Your task to perform on an android device: See recent photos Image 0: 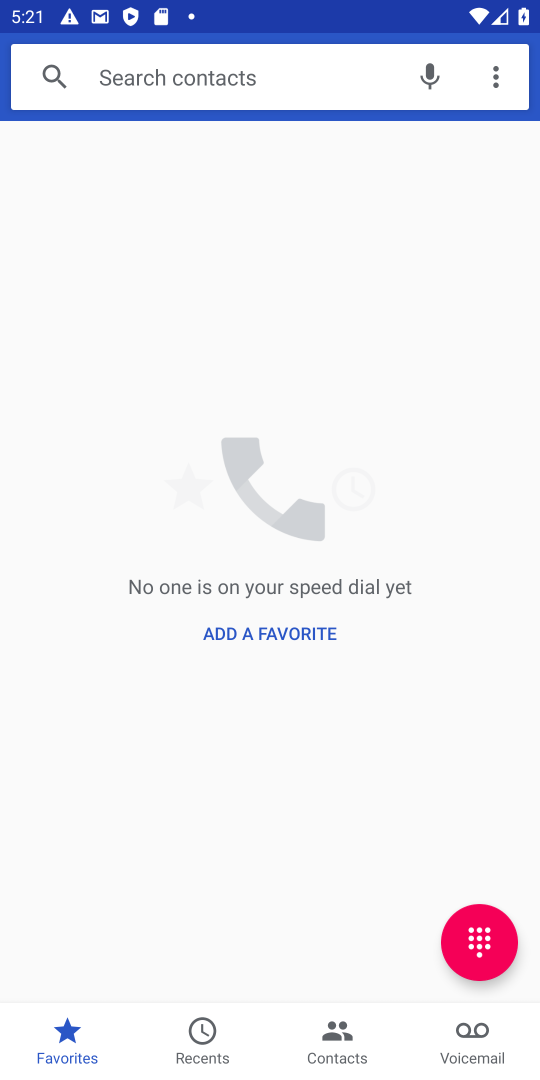
Step 0: press home button
Your task to perform on an android device: See recent photos Image 1: 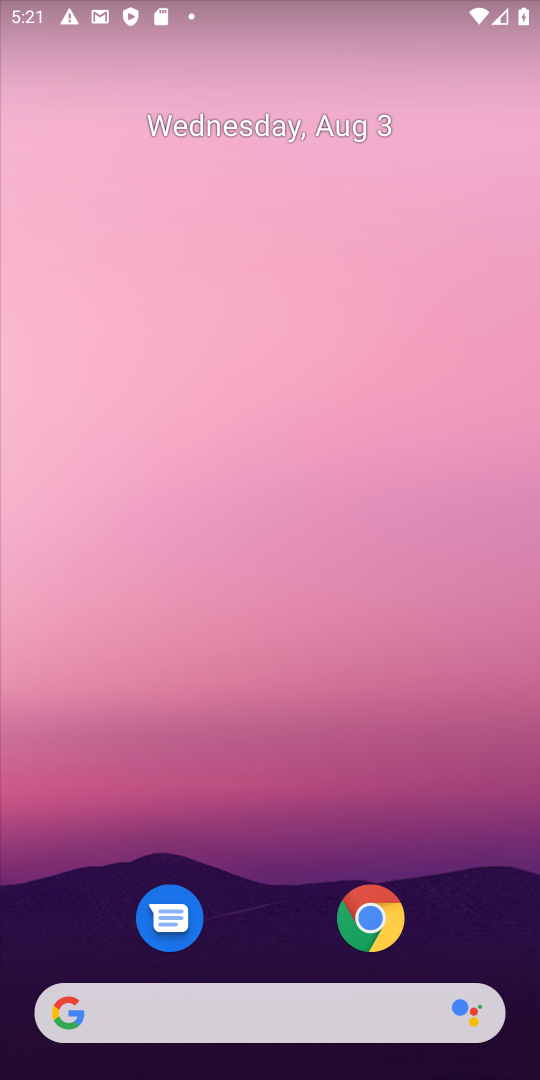
Step 1: drag from (295, 945) to (188, 193)
Your task to perform on an android device: See recent photos Image 2: 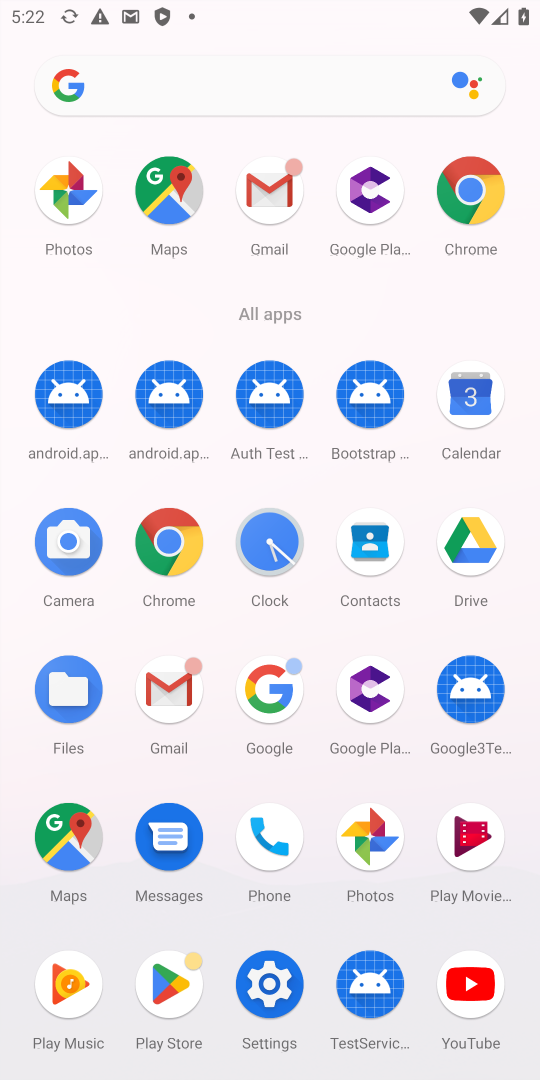
Step 2: click (373, 842)
Your task to perform on an android device: See recent photos Image 3: 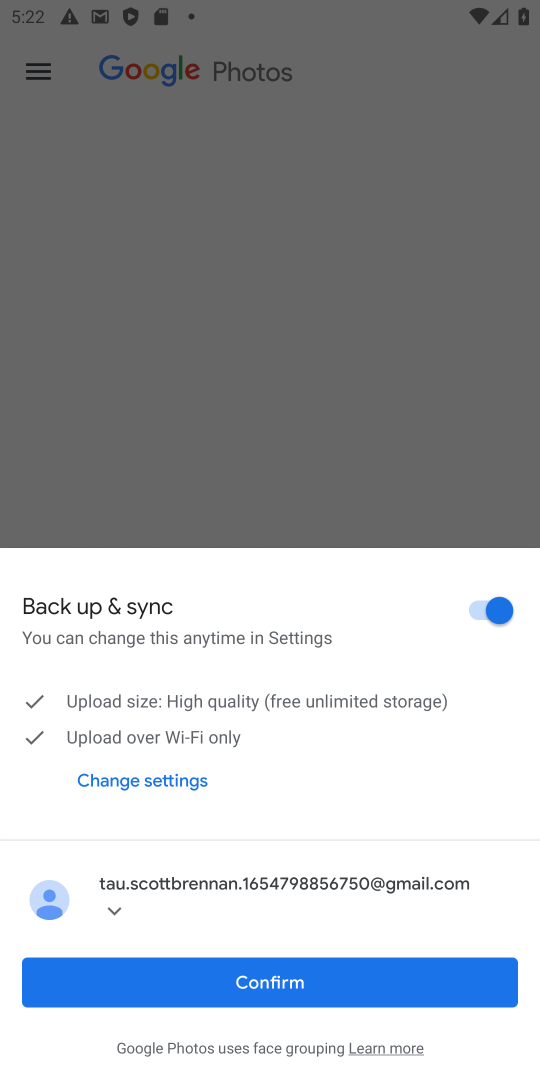
Step 3: click (256, 987)
Your task to perform on an android device: See recent photos Image 4: 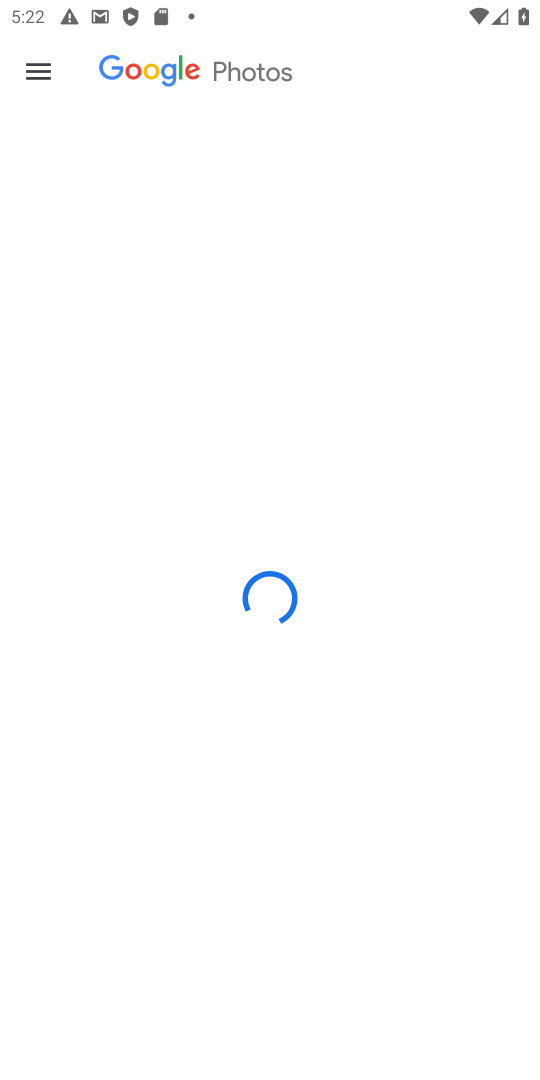
Step 4: click (256, 987)
Your task to perform on an android device: See recent photos Image 5: 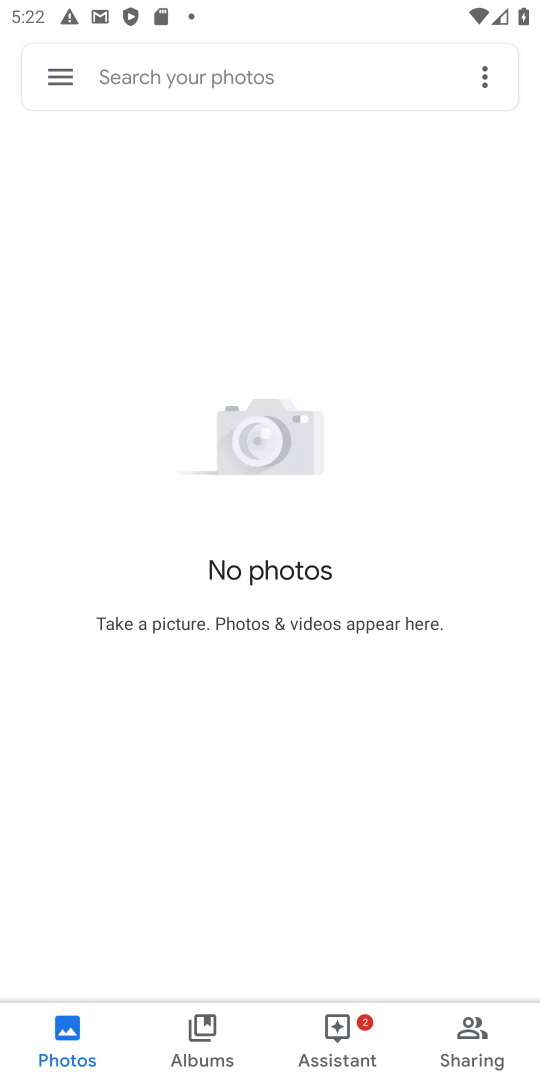
Step 5: task complete